Your task to perform on an android device: Search for flights from London to Paris Image 0: 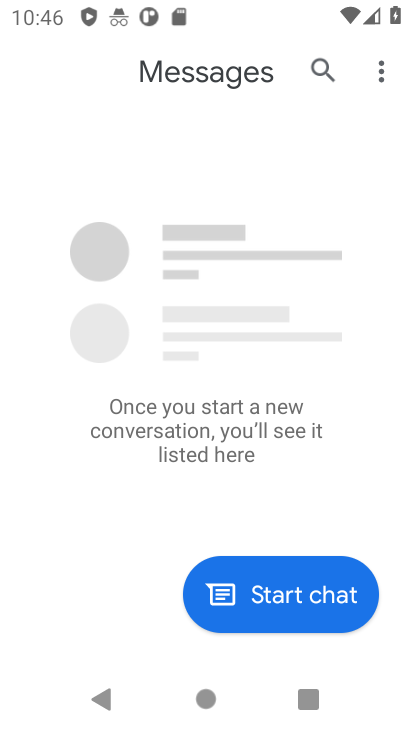
Step 0: press home button
Your task to perform on an android device: Search for flights from London to Paris Image 1: 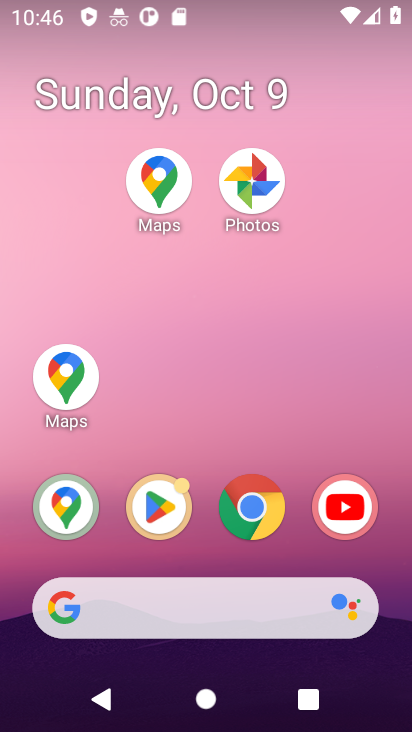
Step 1: drag from (292, 553) to (272, 0)
Your task to perform on an android device: Search for flights from London to Paris Image 2: 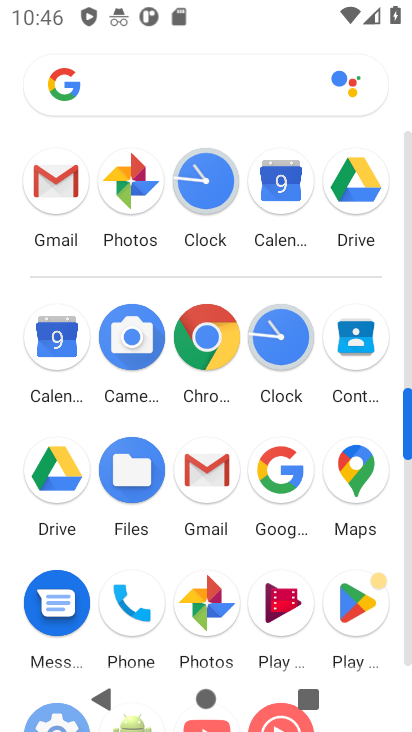
Step 2: click (206, 346)
Your task to perform on an android device: Search for flights from London to Paris Image 3: 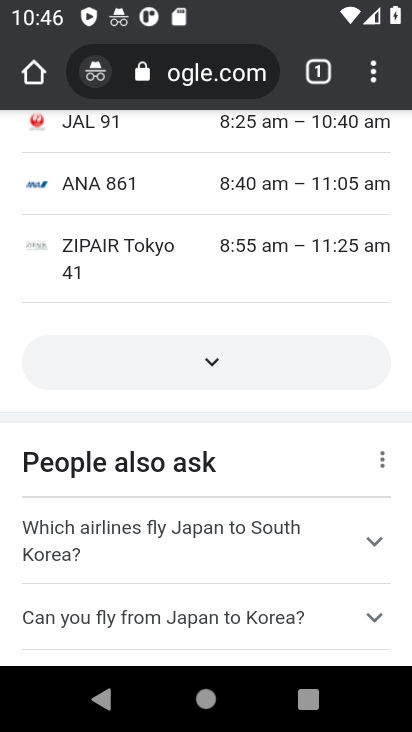
Step 3: click (206, 81)
Your task to perform on an android device: Search for flights from London to Paris Image 4: 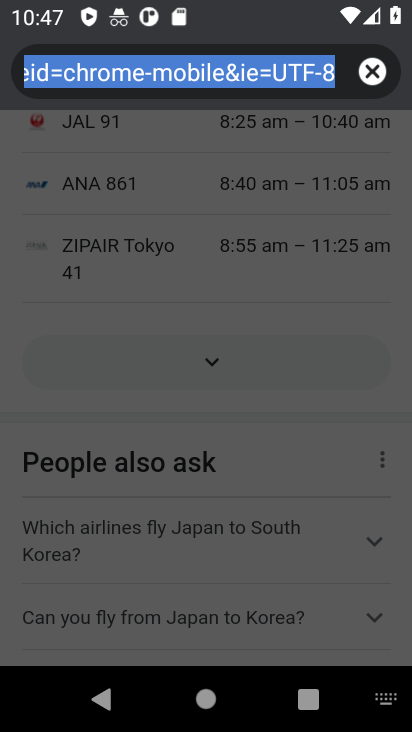
Step 4: type "flights from London to Paris"
Your task to perform on an android device: Search for flights from London to Paris Image 5: 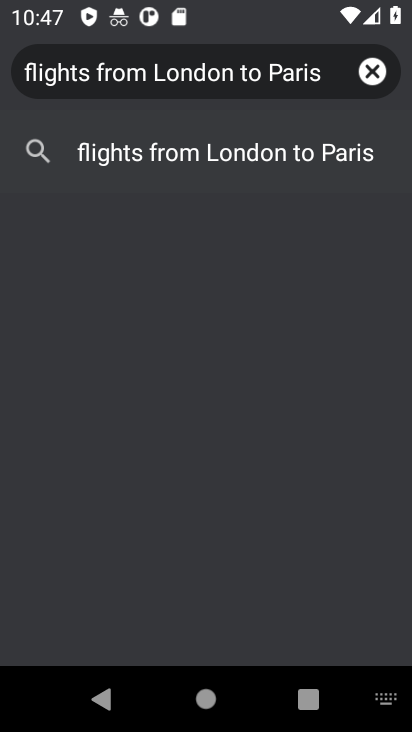
Step 5: press enter
Your task to perform on an android device: Search for flights from London to Paris Image 6: 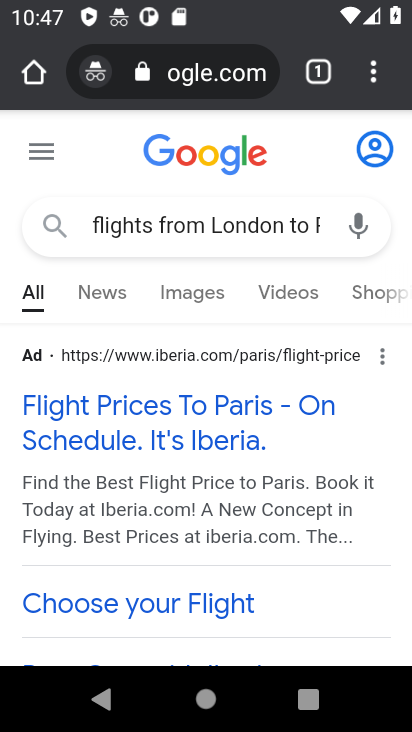
Step 6: task complete